Your task to perform on an android device: search for starred emails in the gmail app Image 0: 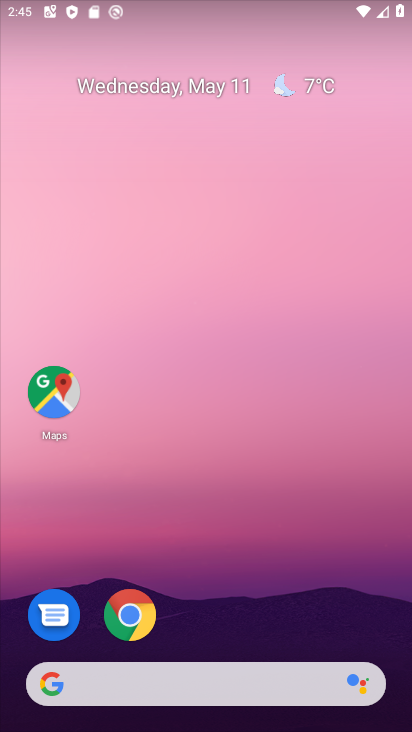
Step 0: drag from (303, 625) to (280, 104)
Your task to perform on an android device: search for starred emails in the gmail app Image 1: 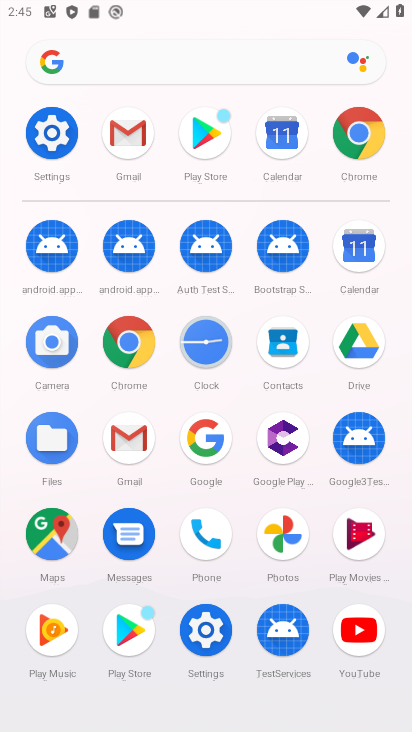
Step 1: click (144, 130)
Your task to perform on an android device: search for starred emails in the gmail app Image 2: 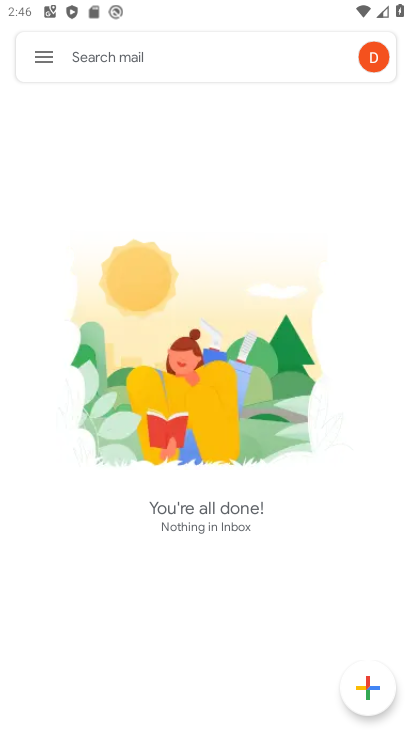
Step 2: click (33, 54)
Your task to perform on an android device: search for starred emails in the gmail app Image 3: 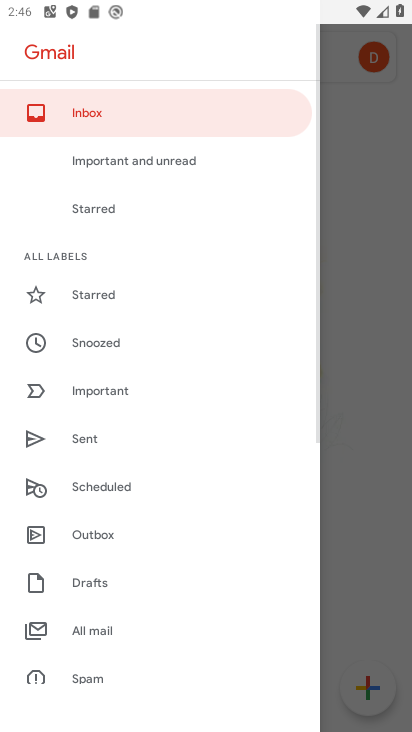
Step 3: click (127, 295)
Your task to perform on an android device: search for starred emails in the gmail app Image 4: 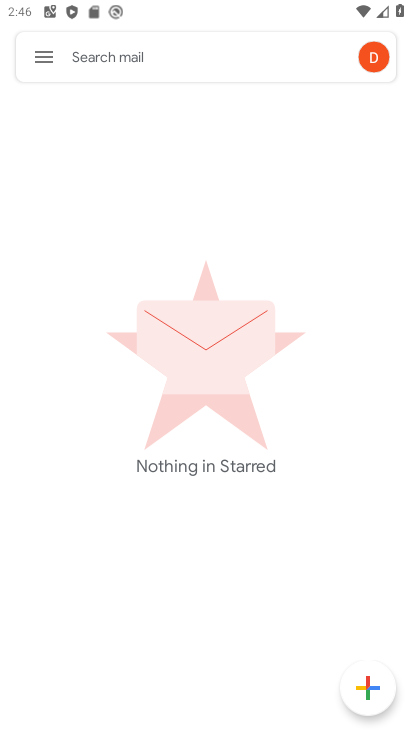
Step 4: task complete